Your task to perform on an android device: Open my contact list Image 0: 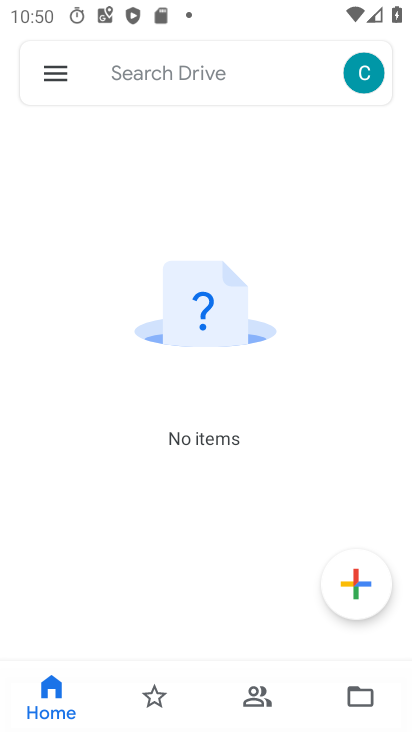
Step 0: press home button
Your task to perform on an android device: Open my contact list Image 1: 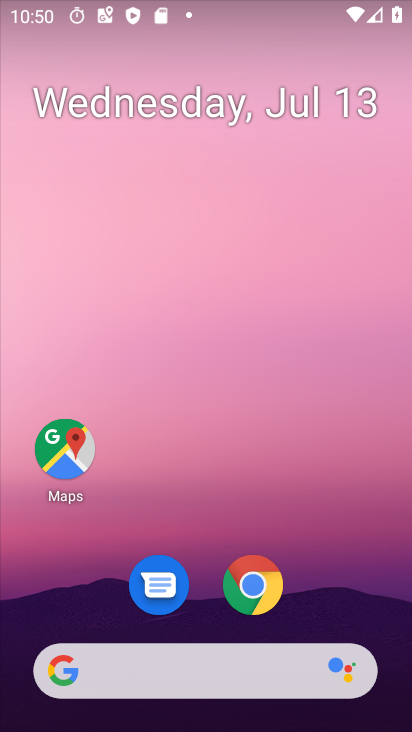
Step 1: drag from (321, 538) to (280, 23)
Your task to perform on an android device: Open my contact list Image 2: 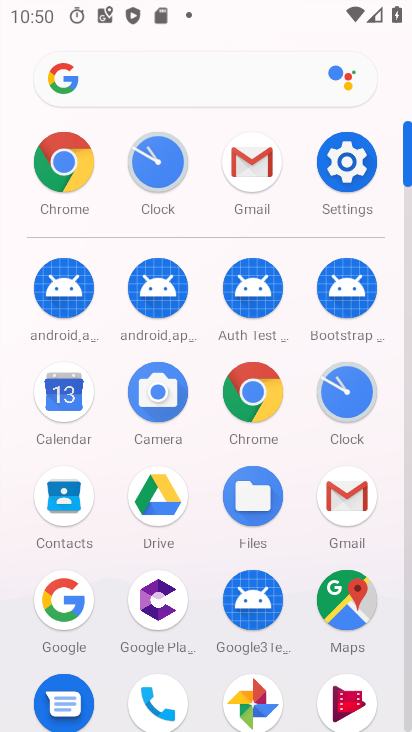
Step 2: drag from (116, 533) to (104, 253)
Your task to perform on an android device: Open my contact list Image 3: 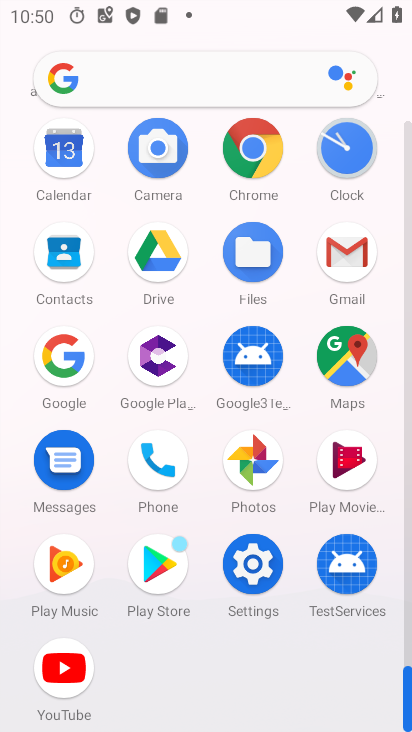
Step 3: click (63, 251)
Your task to perform on an android device: Open my contact list Image 4: 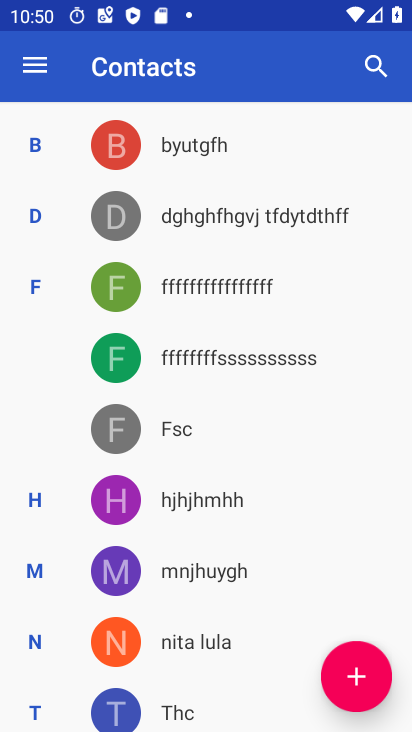
Step 4: task complete